Your task to perform on an android device: toggle wifi Image 0: 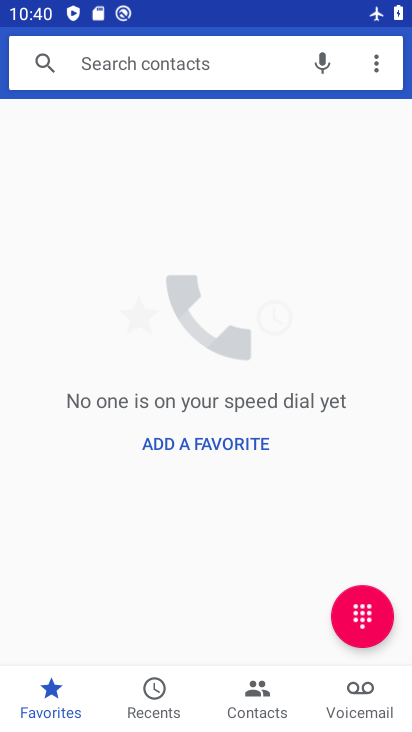
Step 0: drag from (369, 10) to (273, 523)
Your task to perform on an android device: toggle wifi Image 1: 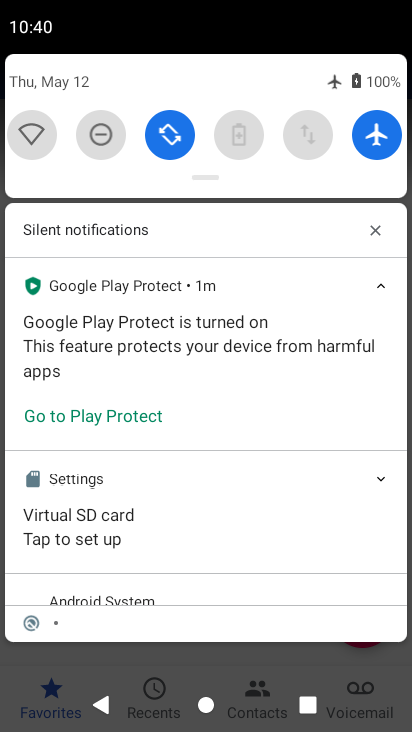
Step 1: click (40, 139)
Your task to perform on an android device: toggle wifi Image 2: 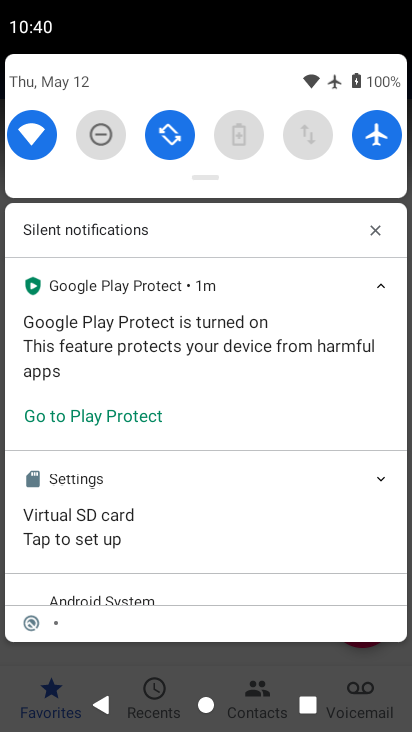
Step 2: task complete